Your task to perform on an android device: turn pop-ups off in chrome Image 0: 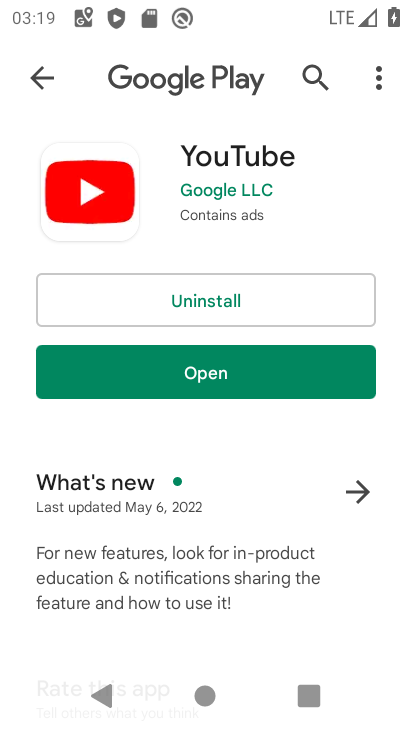
Step 0: press home button
Your task to perform on an android device: turn pop-ups off in chrome Image 1: 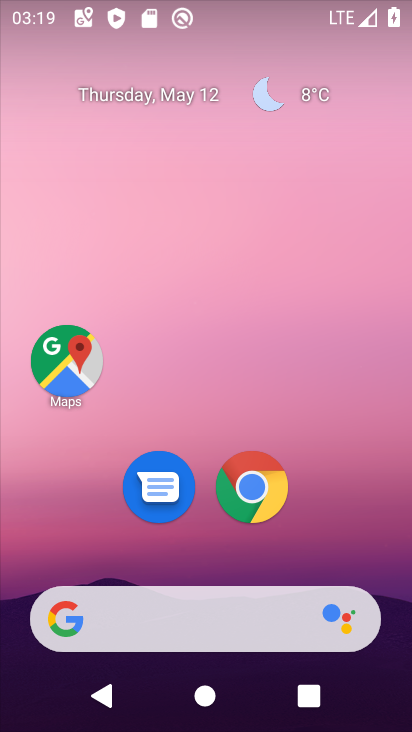
Step 1: drag from (349, 426) to (335, 73)
Your task to perform on an android device: turn pop-ups off in chrome Image 2: 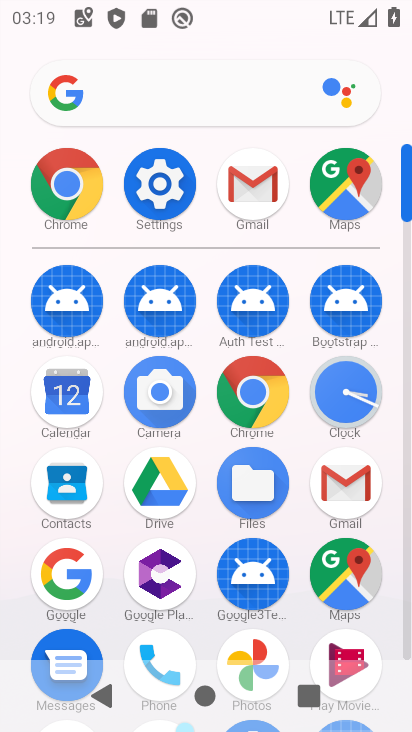
Step 2: click (246, 396)
Your task to perform on an android device: turn pop-ups off in chrome Image 3: 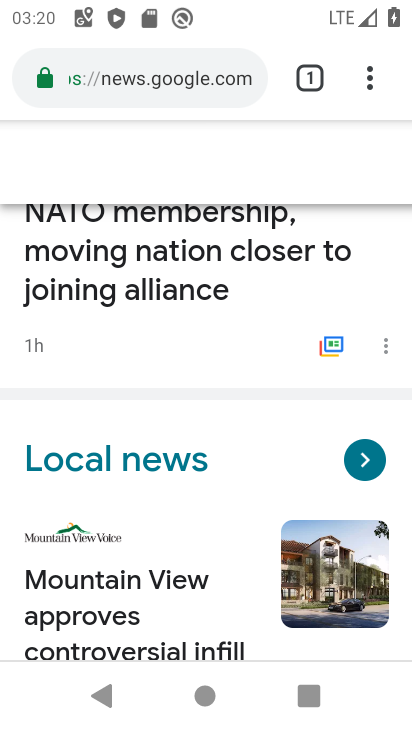
Step 3: drag from (367, 70) to (141, 519)
Your task to perform on an android device: turn pop-ups off in chrome Image 4: 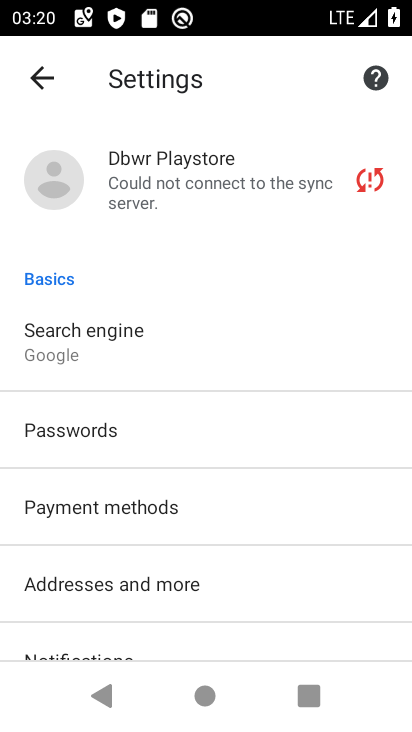
Step 4: drag from (218, 565) to (266, 267)
Your task to perform on an android device: turn pop-ups off in chrome Image 5: 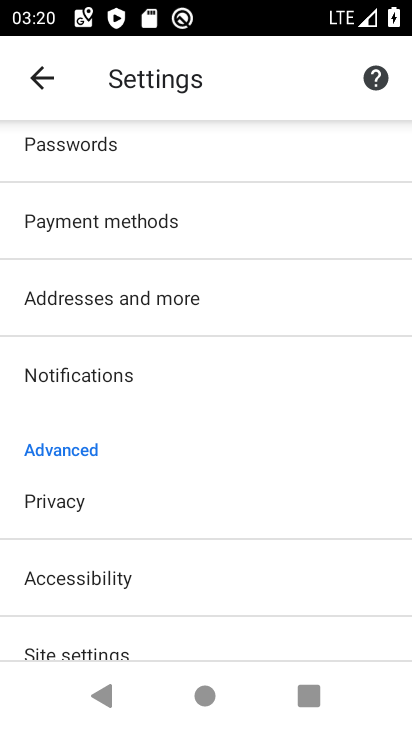
Step 5: drag from (134, 569) to (222, 244)
Your task to perform on an android device: turn pop-ups off in chrome Image 6: 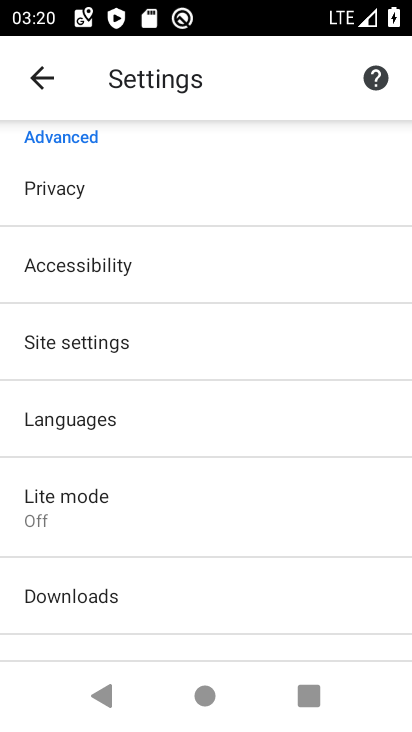
Step 6: click (109, 347)
Your task to perform on an android device: turn pop-ups off in chrome Image 7: 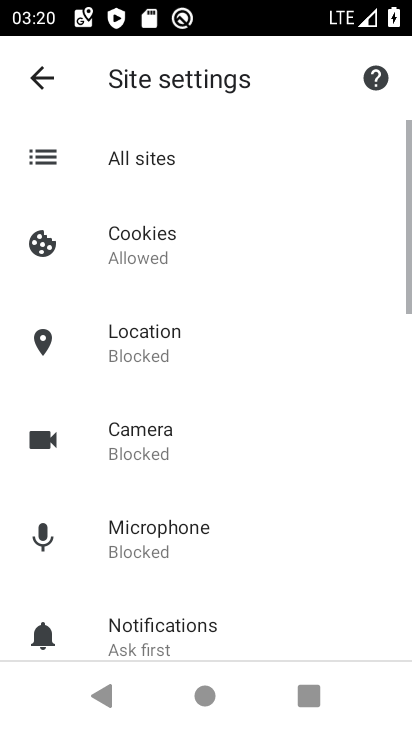
Step 7: drag from (204, 651) to (254, 248)
Your task to perform on an android device: turn pop-ups off in chrome Image 8: 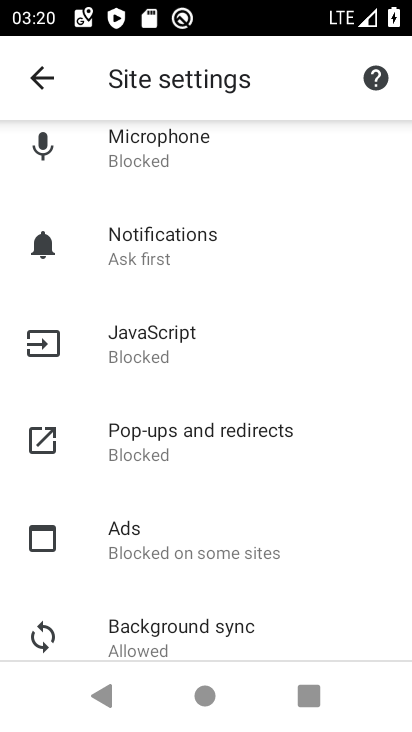
Step 8: click (171, 426)
Your task to perform on an android device: turn pop-ups off in chrome Image 9: 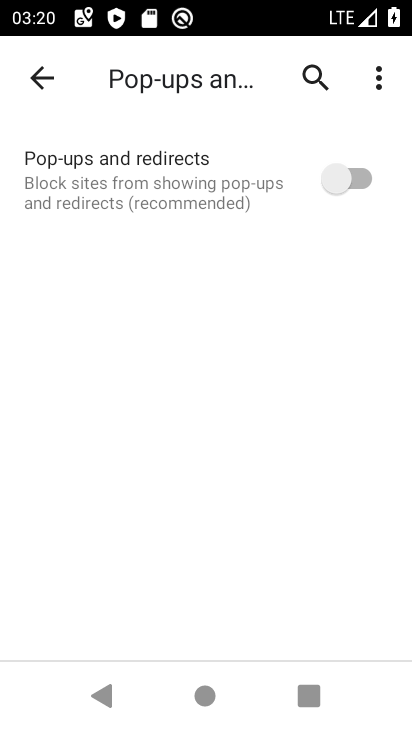
Step 9: task complete